Your task to perform on an android device: delete a single message in the gmail app Image 0: 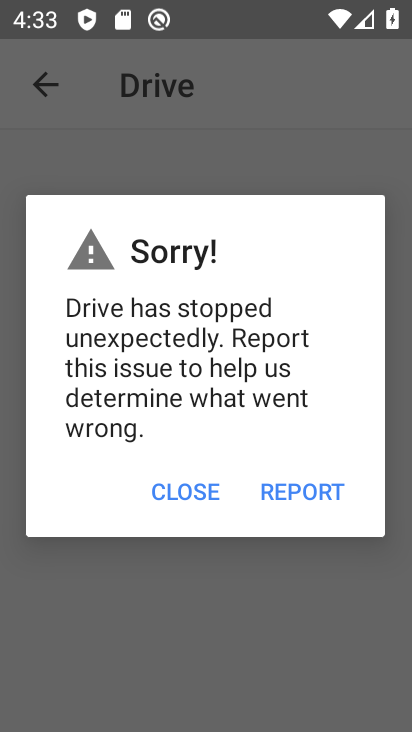
Step 0: press home button
Your task to perform on an android device: delete a single message in the gmail app Image 1: 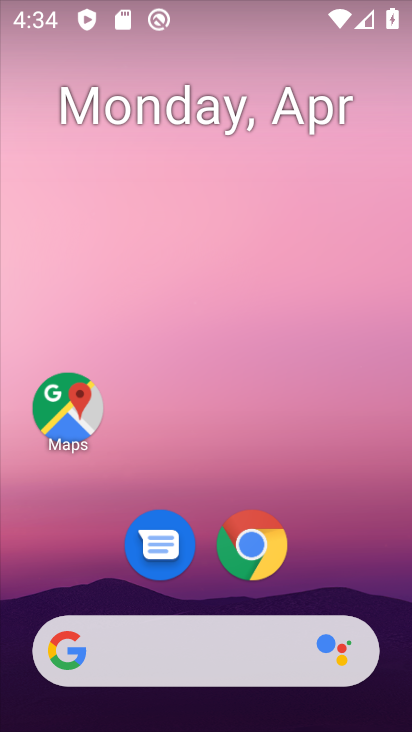
Step 1: drag from (351, 575) to (329, 8)
Your task to perform on an android device: delete a single message in the gmail app Image 2: 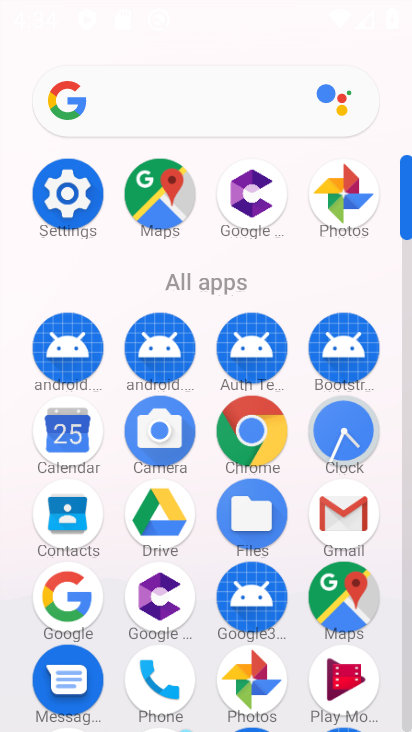
Step 2: drag from (356, 565) to (305, 63)
Your task to perform on an android device: delete a single message in the gmail app Image 3: 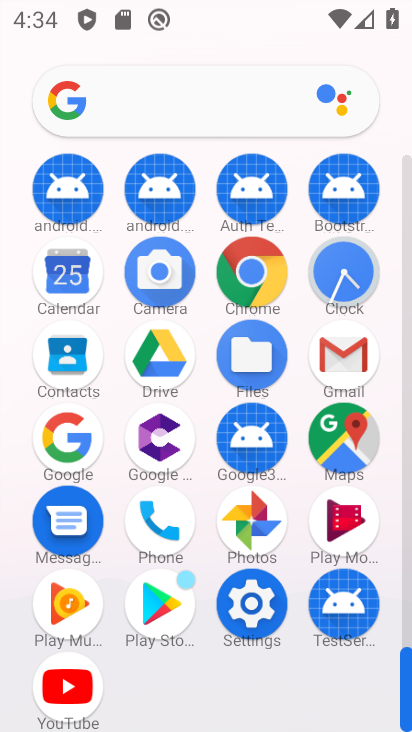
Step 3: click (338, 361)
Your task to perform on an android device: delete a single message in the gmail app Image 4: 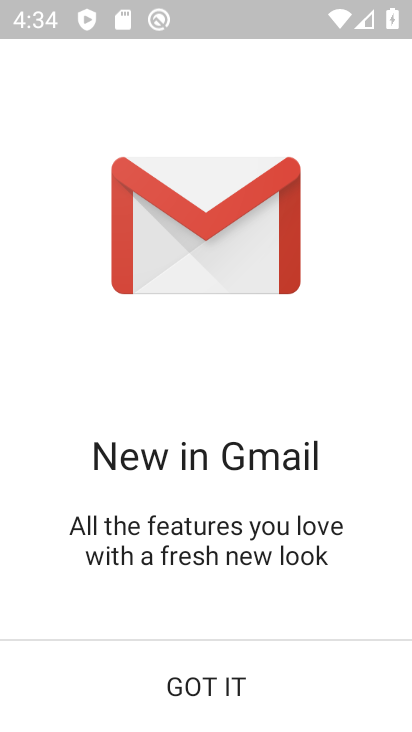
Step 4: click (213, 697)
Your task to perform on an android device: delete a single message in the gmail app Image 5: 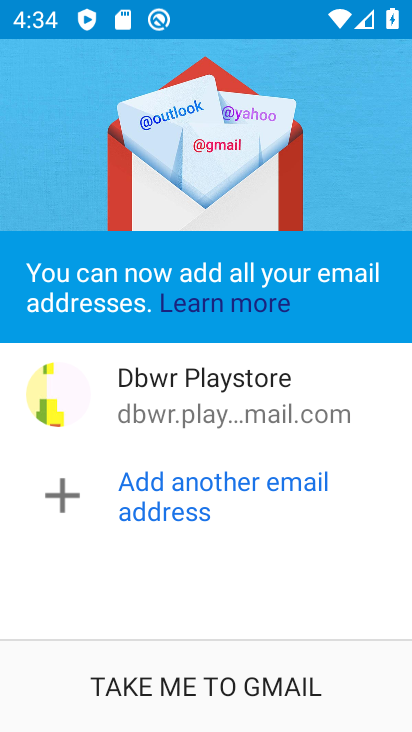
Step 5: click (213, 697)
Your task to perform on an android device: delete a single message in the gmail app Image 6: 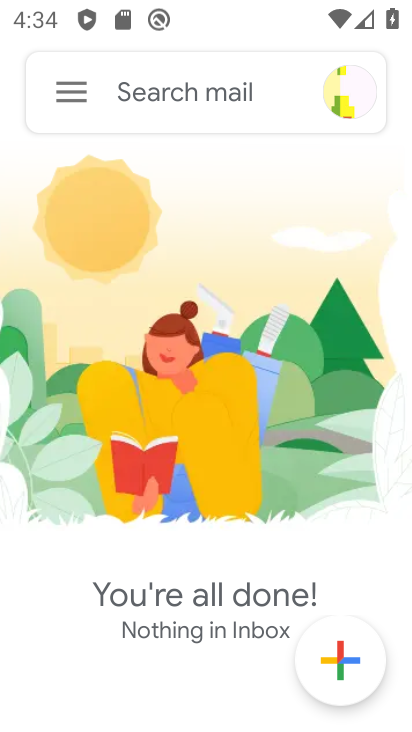
Step 6: click (72, 106)
Your task to perform on an android device: delete a single message in the gmail app Image 7: 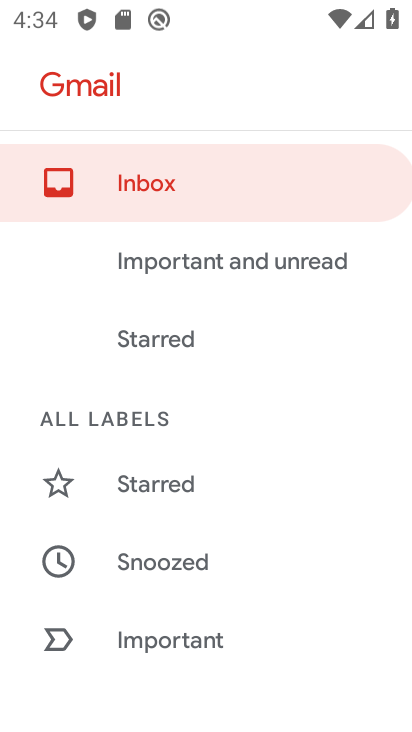
Step 7: drag from (200, 504) to (141, 39)
Your task to perform on an android device: delete a single message in the gmail app Image 8: 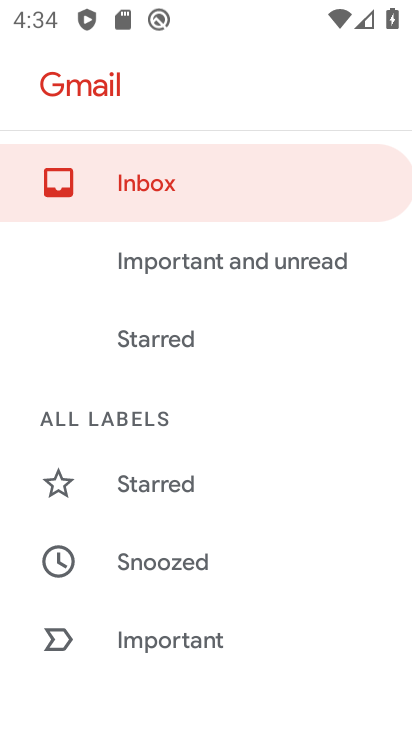
Step 8: drag from (277, 575) to (327, 61)
Your task to perform on an android device: delete a single message in the gmail app Image 9: 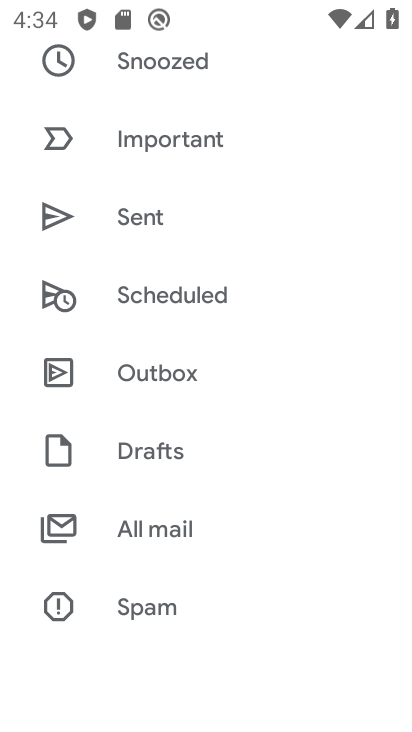
Step 9: click (151, 518)
Your task to perform on an android device: delete a single message in the gmail app Image 10: 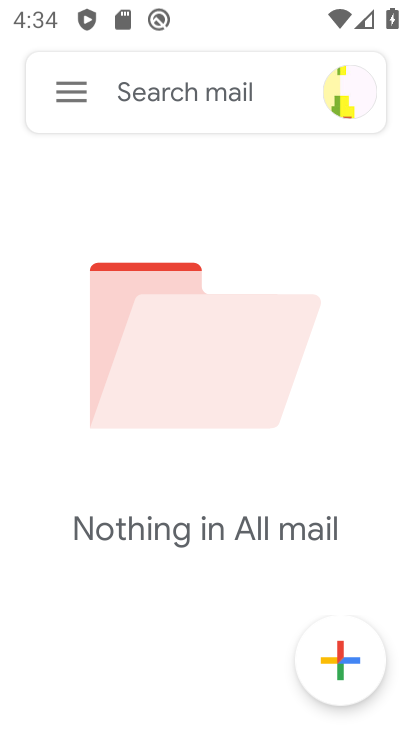
Step 10: task complete